Your task to perform on an android device: Open Google Maps Image 0: 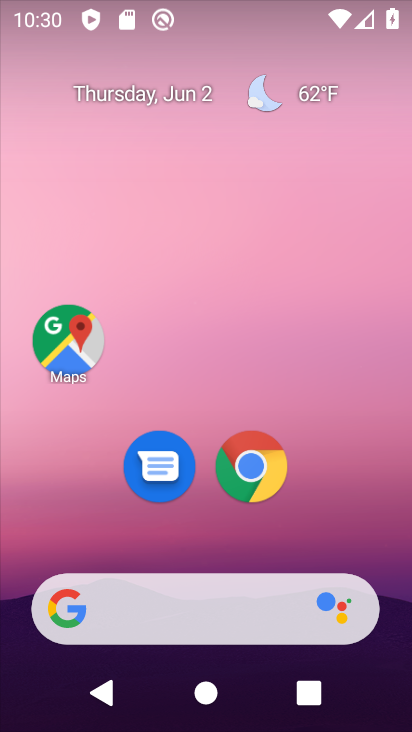
Step 0: click (51, 337)
Your task to perform on an android device: Open Google Maps Image 1: 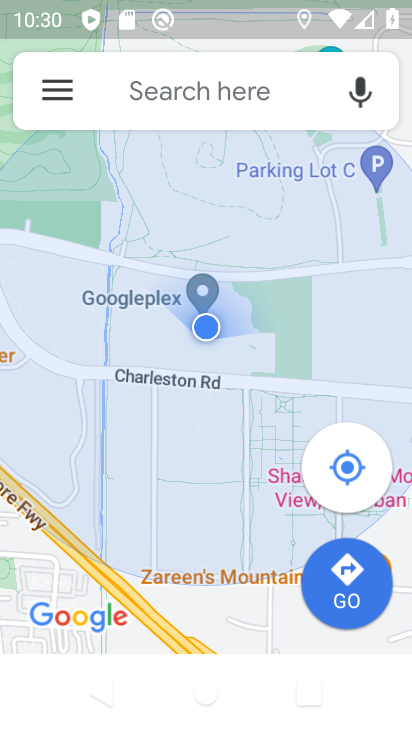
Step 1: task complete